Your task to perform on an android device: turn off javascript in the chrome app Image 0: 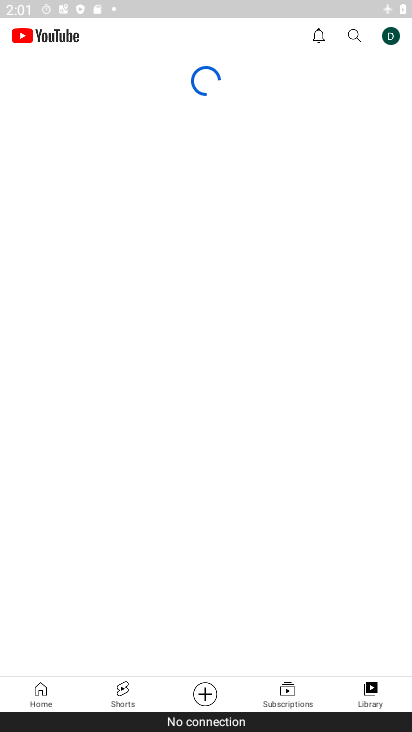
Step 0: press home button
Your task to perform on an android device: turn off javascript in the chrome app Image 1: 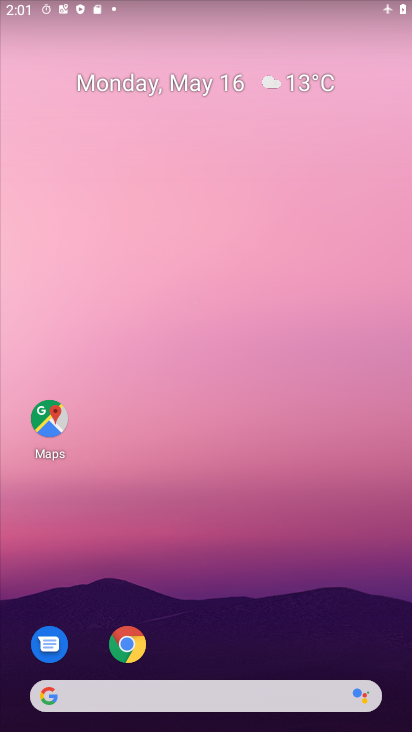
Step 1: click (121, 653)
Your task to perform on an android device: turn off javascript in the chrome app Image 2: 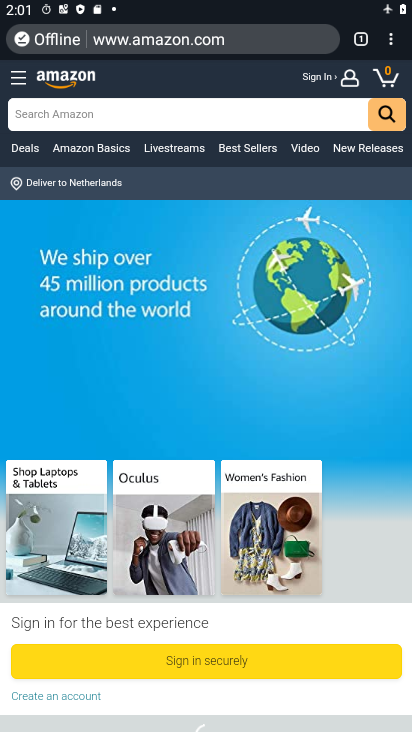
Step 2: click (387, 50)
Your task to perform on an android device: turn off javascript in the chrome app Image 3: 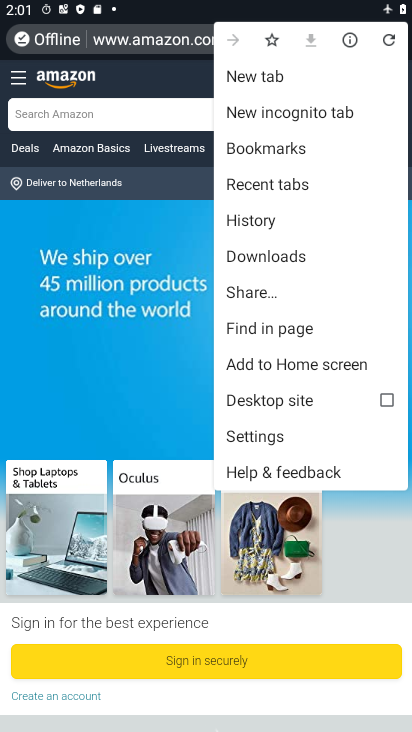
Step 3: click (266, 439)
Your task to perform on an android device: turn off javascript in the chrome app Image 4: 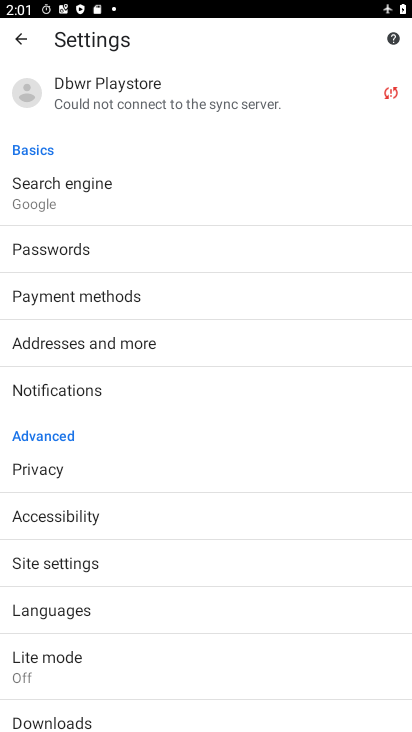
Step 4: drag from (159, 590) to (168, 370)
Your task to perform on an android device: turn off javascript in the chrome app Image 5: 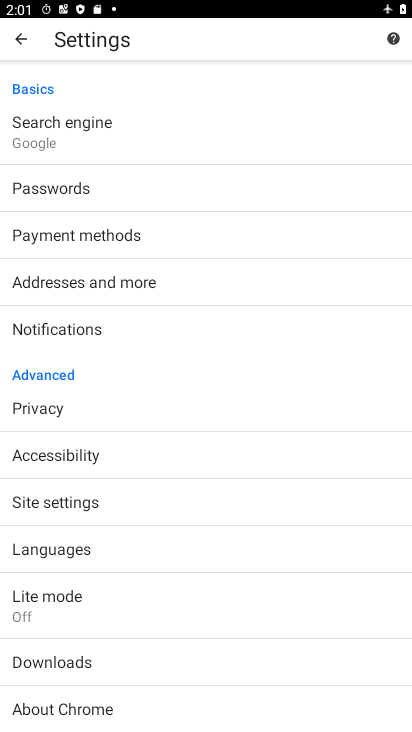
Step 5: click (87, 508)
Your task to perform on an android device: turn off javascript in the chrome app Image 6: 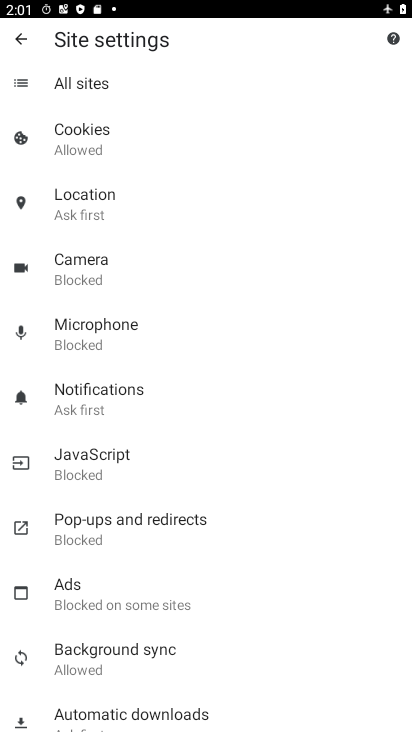
Step 6: click (111, 455)
Your task to perform on an android device: turn off javascript in the chrome app Image 7: 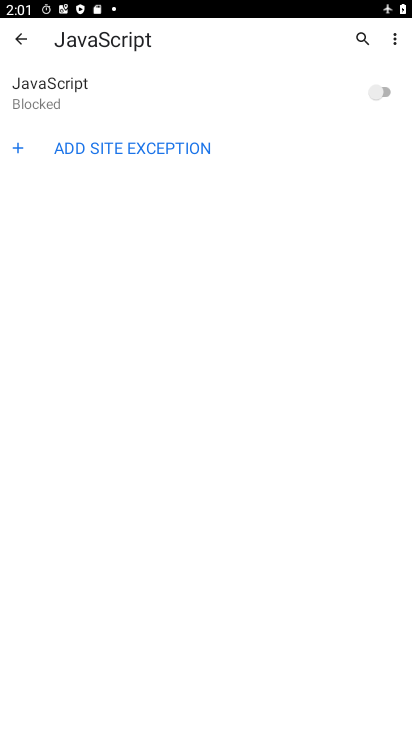
Step 7: task complete